Your task to perform on an android device: change the clock display to show seconds Image 0: 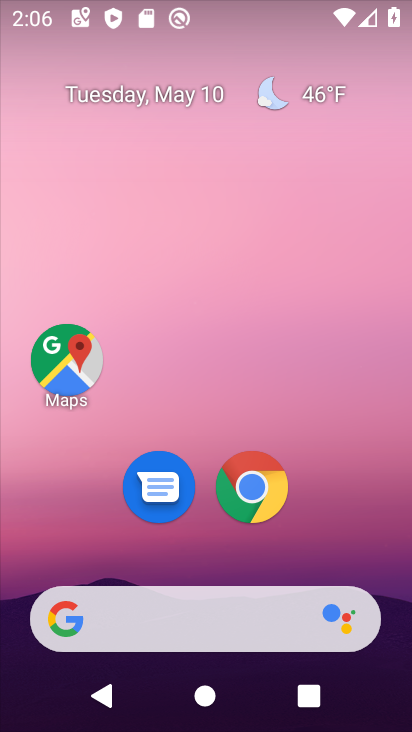
Step 0: drag from (350, 427) to (327, 29)
Your task to perform on an android device: change the clock display to show seconds Image 1: 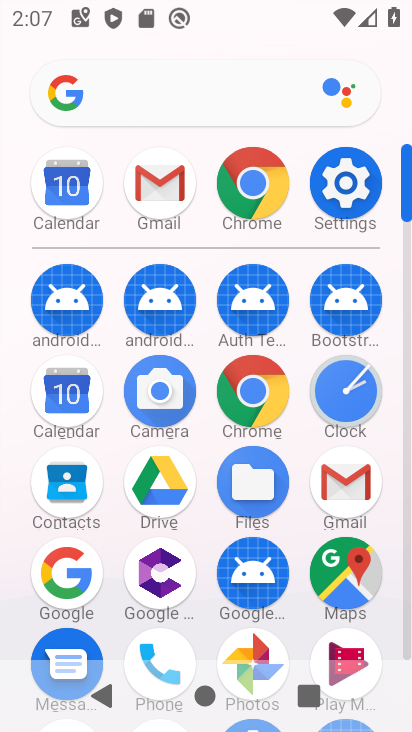
Step 1: click (356, 396)
Your task to perform on an android device: change the clock display to show seconds Image 2: 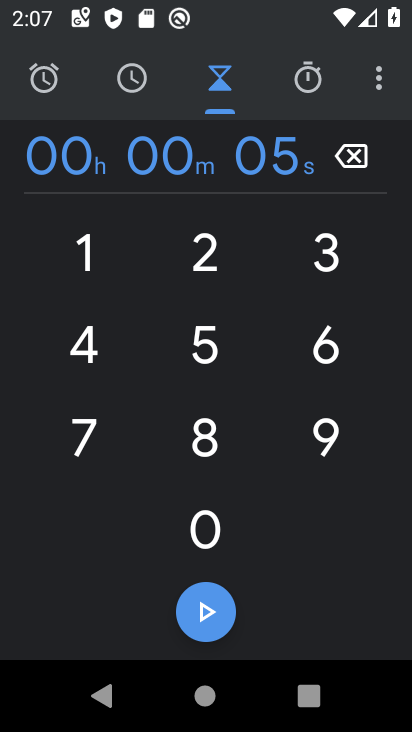
Step 2: click (379, 77)
Your task to perform on an android device: change the clock display to show seconds Image 3: 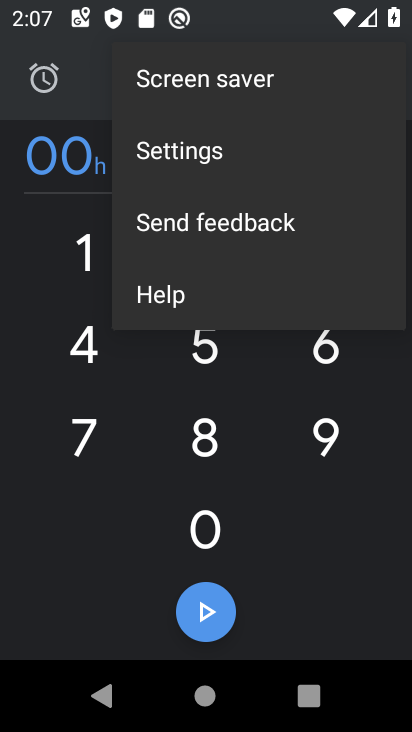
Step 3: click (186, 165)
Your task to perform on an android device: change the clock display to show seconds Image 4: 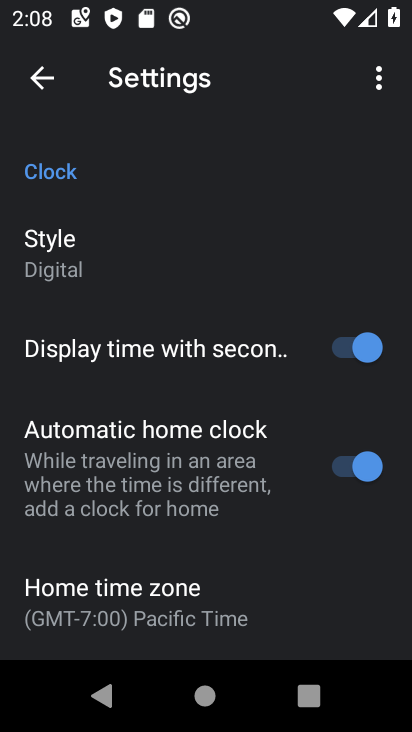
Step 4: task complete